Your task to perform on an android device: install app "Grab" Image 0: 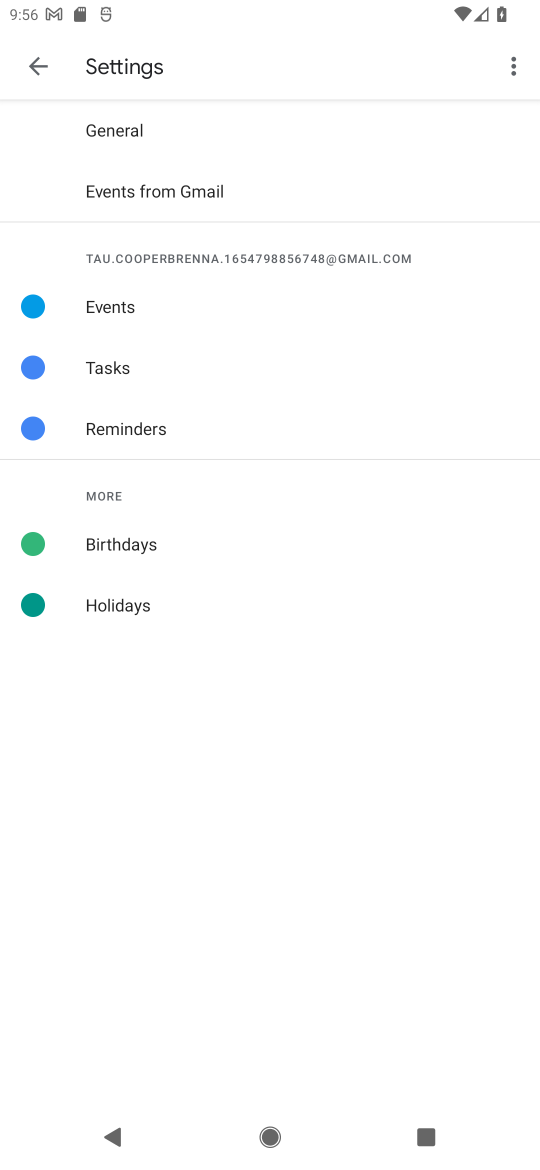
Step 0: press home button
Your task to perform on an android device: install app "Grab" Image 1: 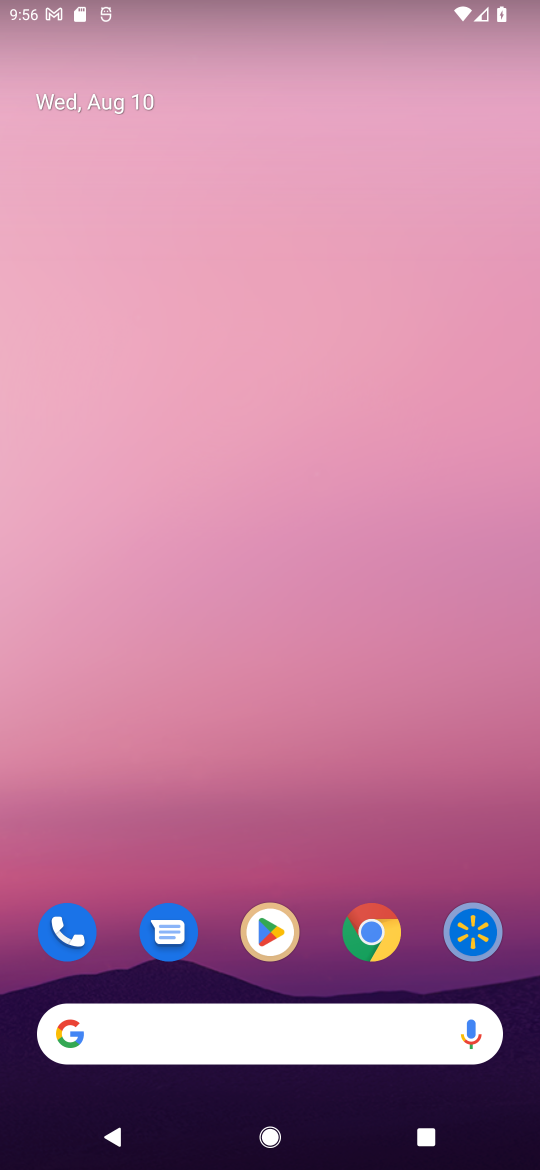
Step 1: click (252, 933)
Your task to perform on an android device: install app "Grab" Image 2: 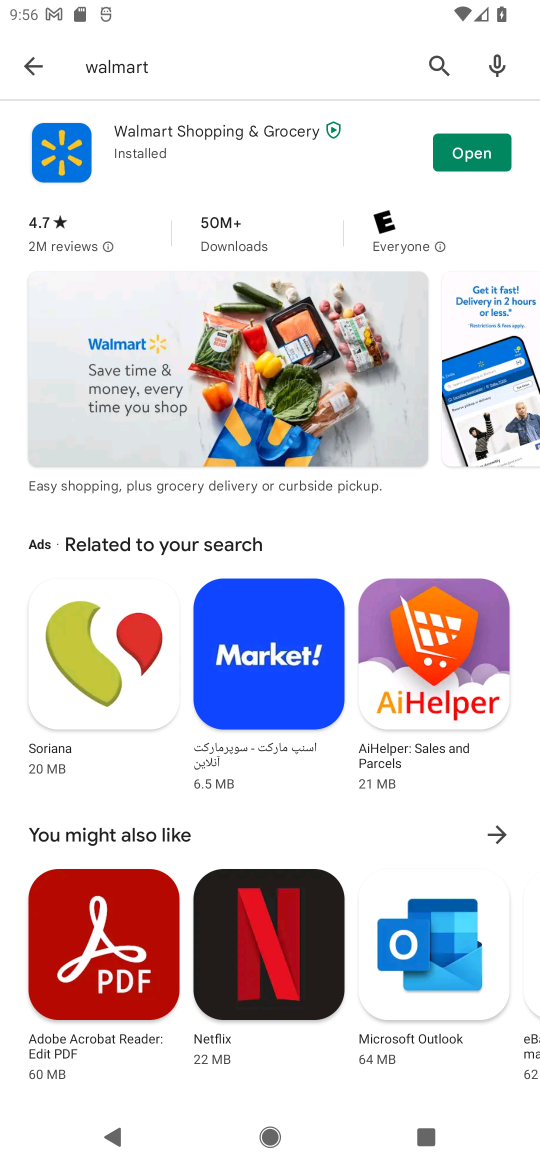
Step 2: click (453, 60)
Your task to perform on an android device: install app "Grab" Image 3: 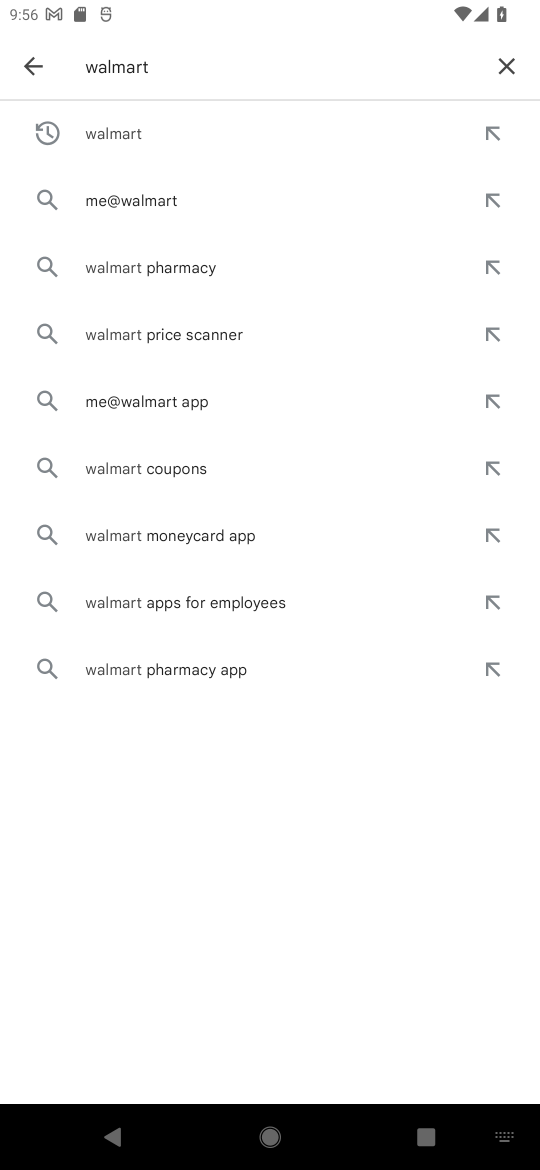
Step 3: click (509, 67)
Your task to perform on an android device: install app "Grab" Image 4: 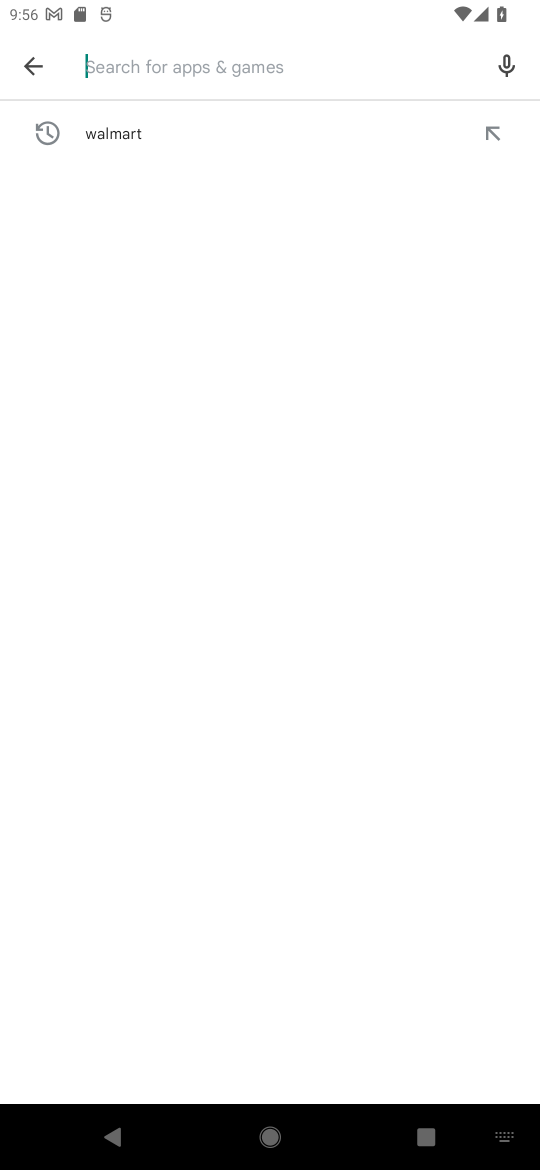
Step 4: type "grab"
Your task to perform on an android device: install app "Grab" Image 5: 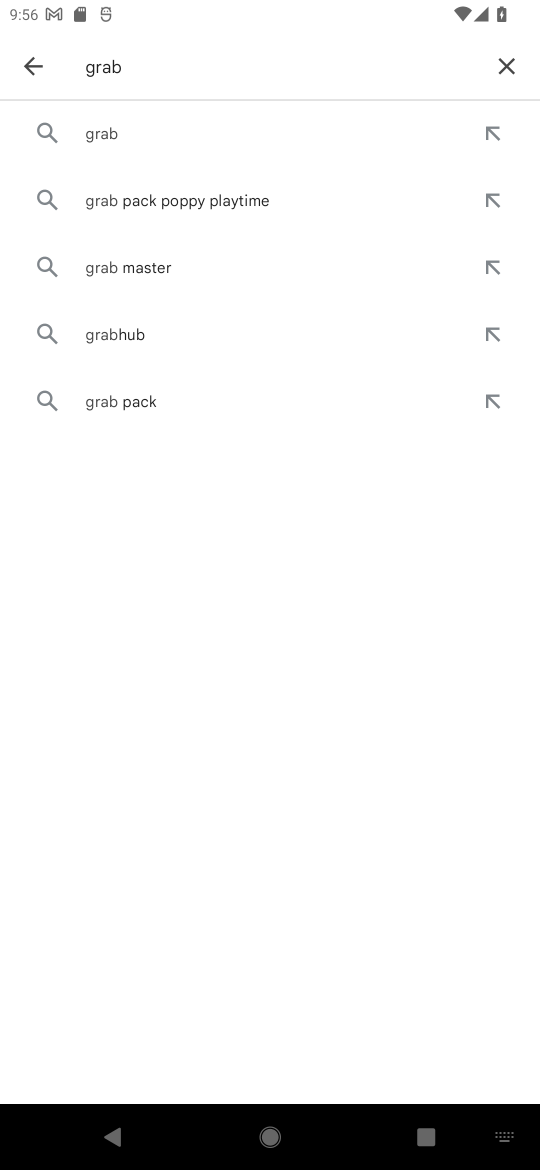
Step 5: click (233, 128)
Your task to perform on an android device: install app "Grab" Image 6: 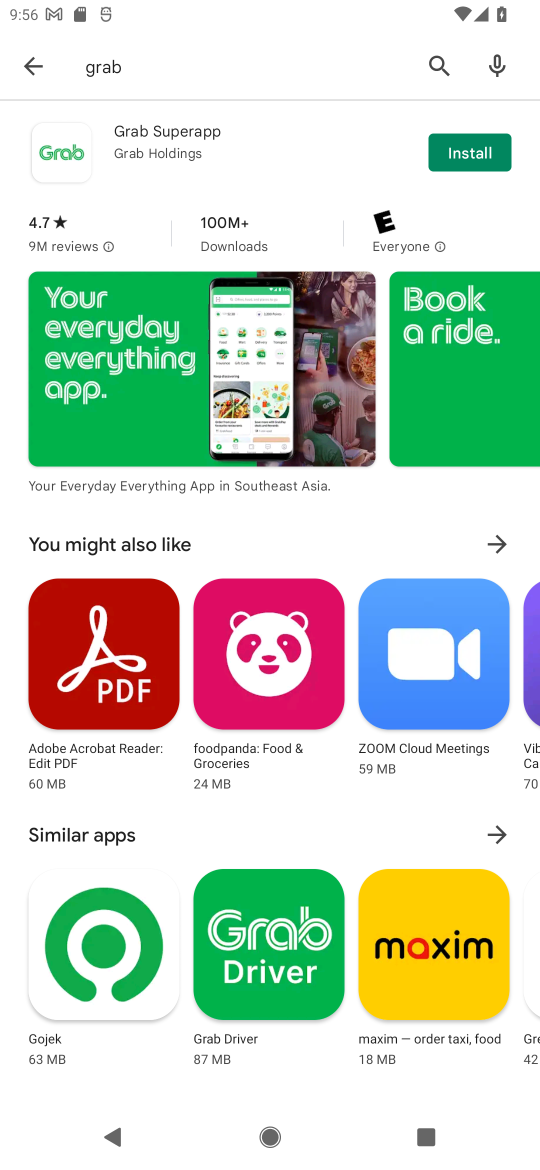
Step 6: click (469, 162)
Your task to perform on an android device: install app "Grab" Image 7: 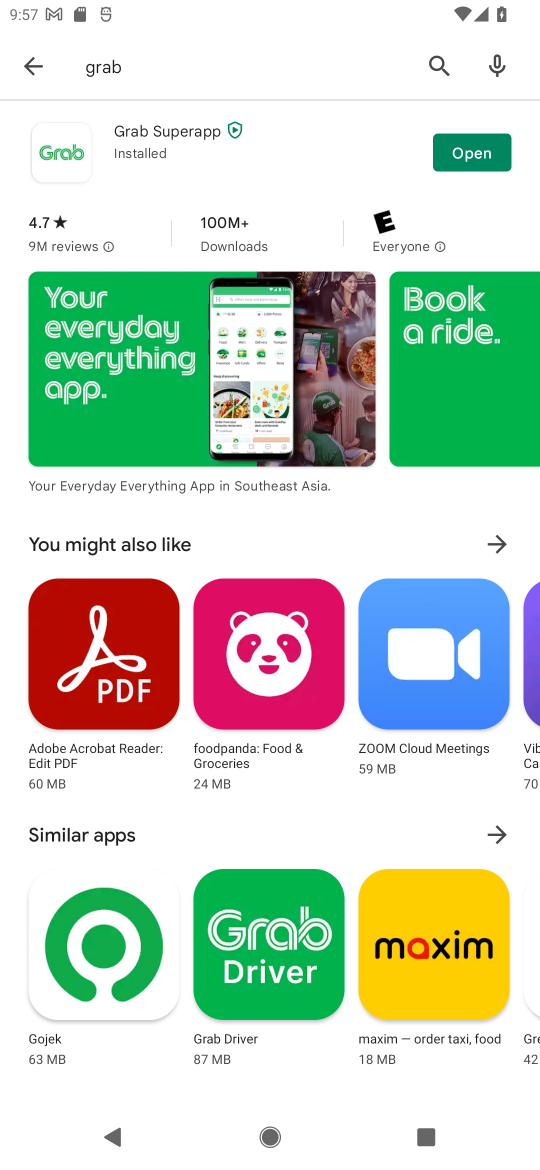
Step 7: task complete